Your task to perform on an android device: empty trash in google photos Image 0: 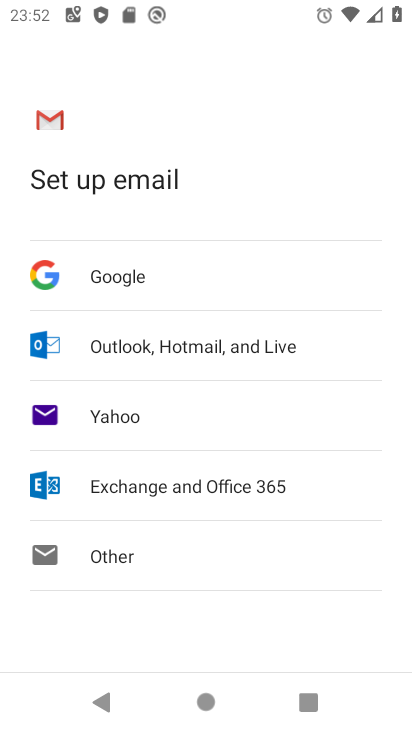
Step 0: press home button
Your task to perform on an android device: empty trash in google photos Image 1: 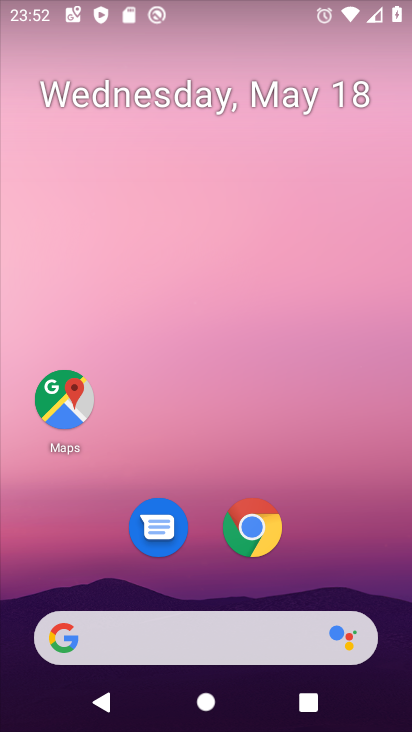
Step 1: drag from (314, 542) to (317, 74)
Your task to perform on an android device: empty trash in google photos Image 2: 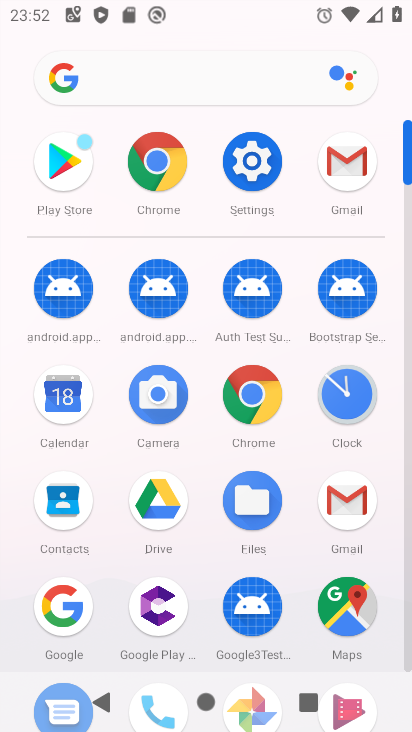
Step 2: click (403, 663)
Your task to perform on an android device: empty trash in google photos Image 3: 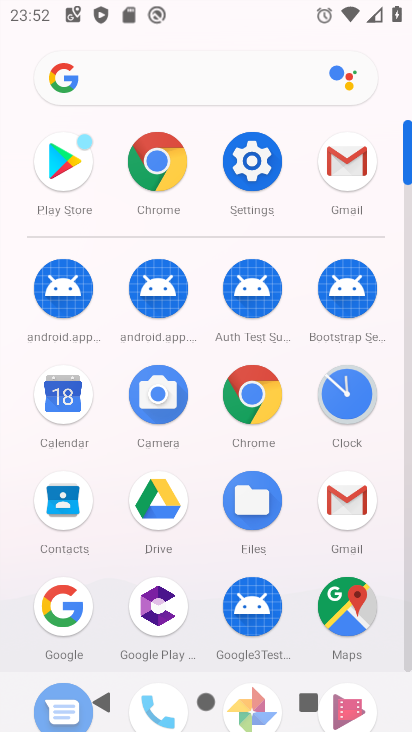
Step 3: click (403, 663)
Your task to perform on an android device: empty trash in google photos Image 4: 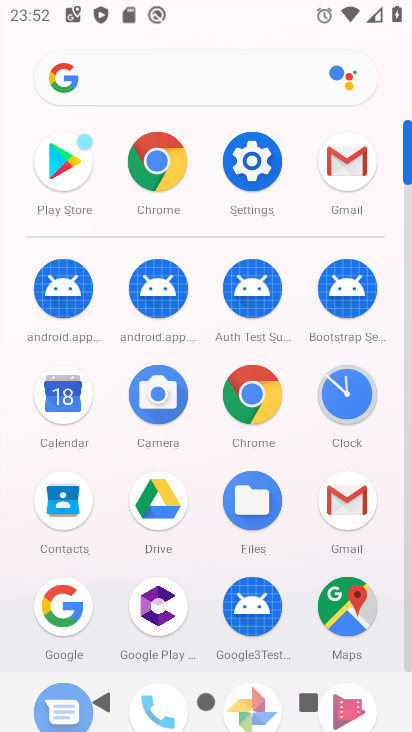
Step 4: click (403, 655)
Your task to perform on an android device: empty trash in google photos Image 5: 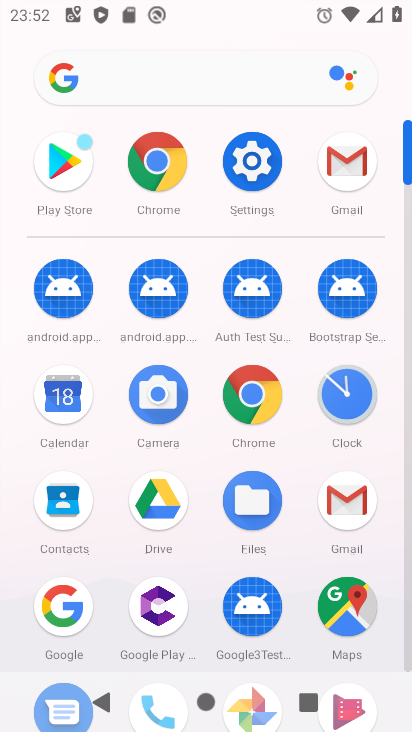
Step 5: click (403, 655)
Your task to perform on an android device: empty trash in google photos Image 6: 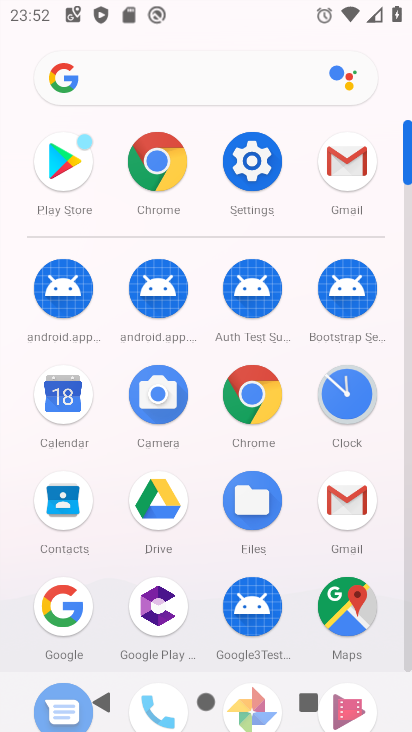
Step 6: click (403, 655)
Your task to perform on an android device: empty trash in google photos Image 7: 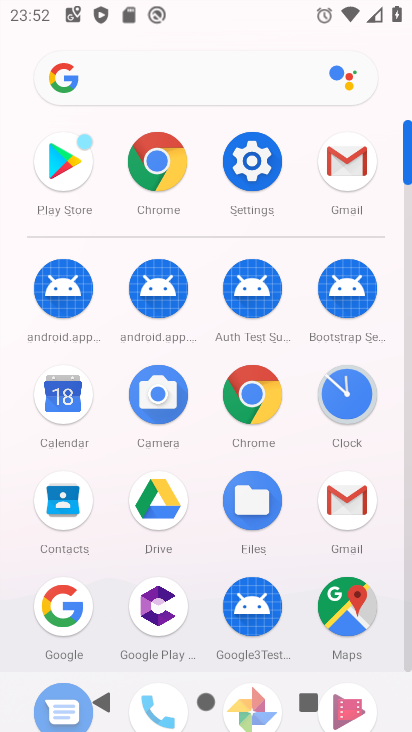
Step 7: drag from (406, 158) to (408, 407)
Your task to perform on an android device: empty trash in google photos Image 8: 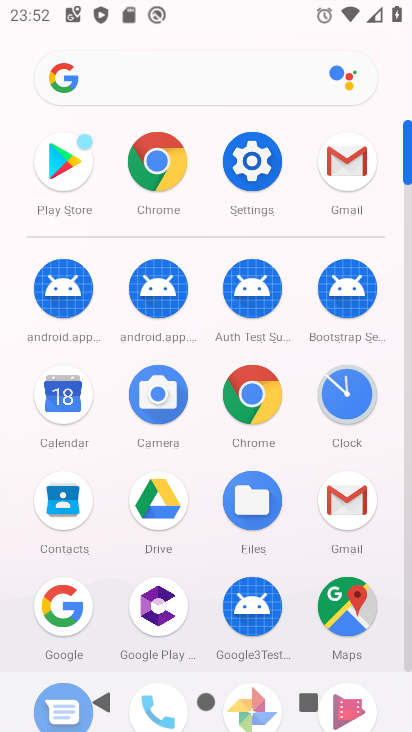
Step 8: drag from (387, 580) to (409, 236)
Your task to perform on an android device: empty trash in google photos Image 9: 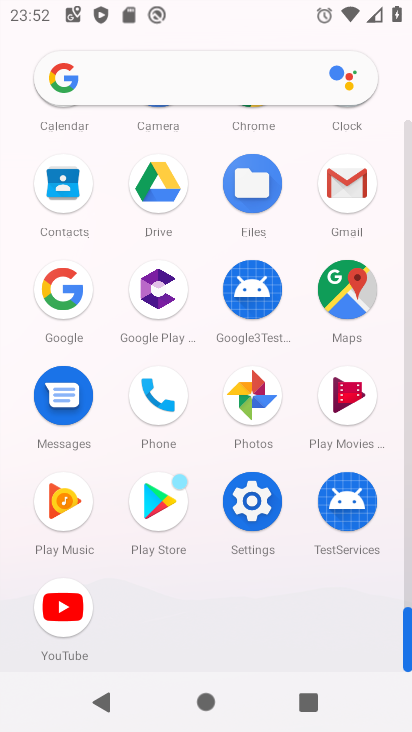
Step 9: click (263, 414)
Your task to perform on an android device: empty trash in google photos Image 10: 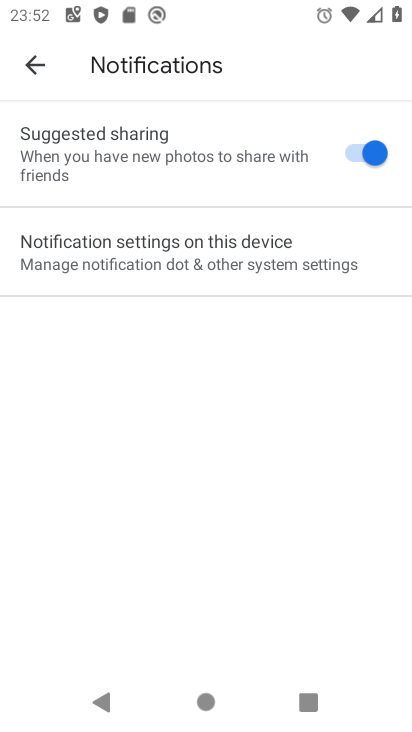
Step 10: click (19, 57)
Your task to perform on an android device: empty trash in google photos Image 11: 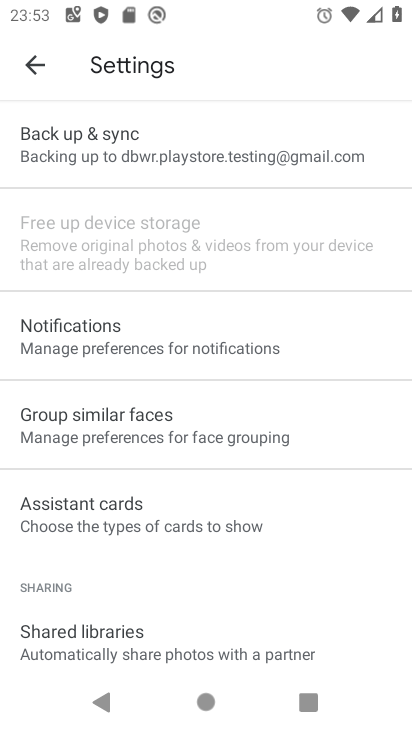
Step 11: click (37, 71)
Your task to perform on an android device: empty trash in google photos Image 12: 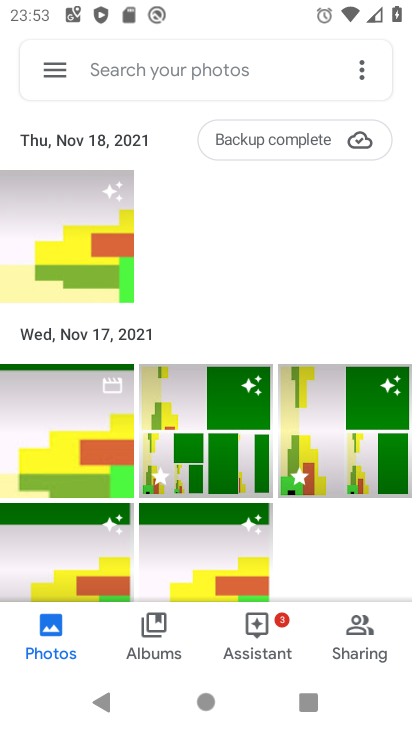
Step 12: click (75, 73)
Your task to perform on an android device: empty trash in google photos Image 13: 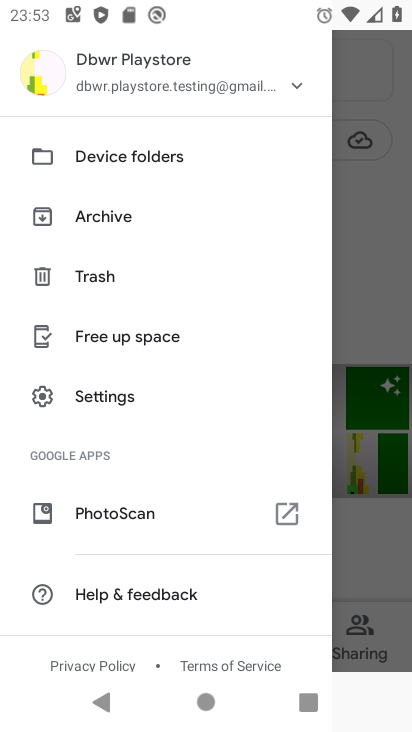
Step 13: click (99, 269)
Your task to perform on an android device: empty trash in google photos Image 14: 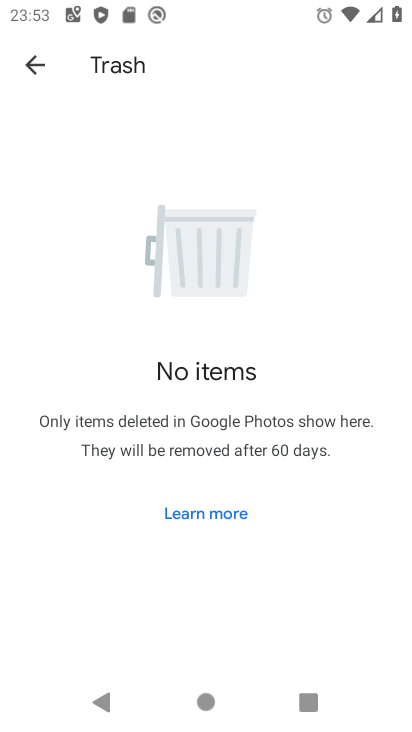
Step 14: task complete